Your task to perform on an android device: open wifi settings Image 0: 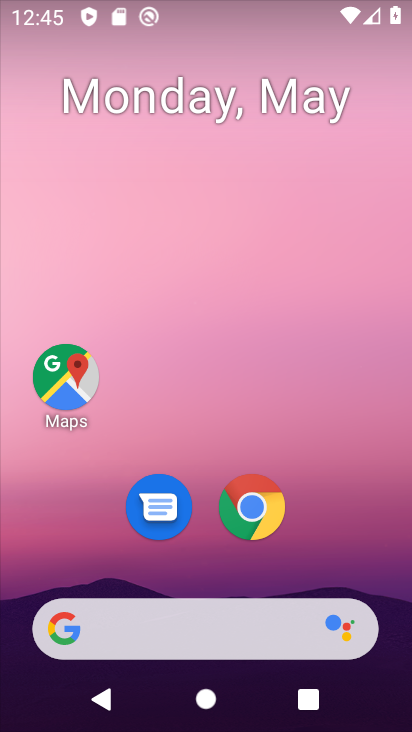
Step 0: drag from (207, 728) to (218, 5)
Your task to perform on an android device: open wifi settings Image 1: 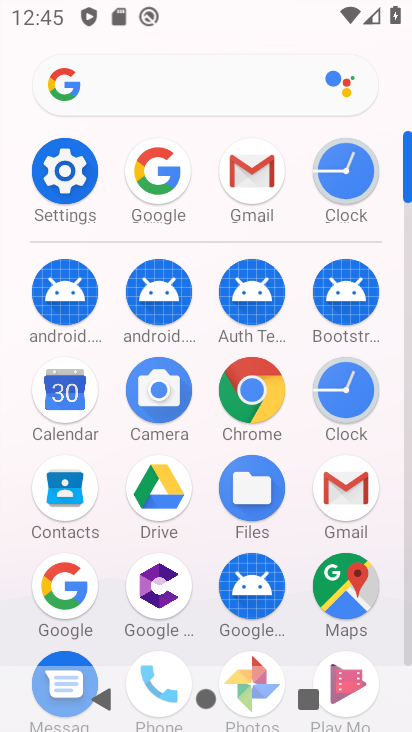
Step 1: click (71, 168)
Your task to perform on an android device: open wifi settings Image 2: 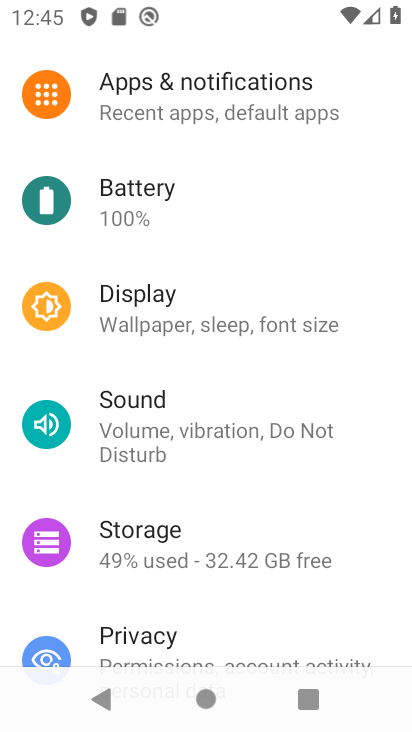
Step 2: drag from (275, 118) to (286, 619)
Your task to perform on an android device: open wifi settings Image 3: 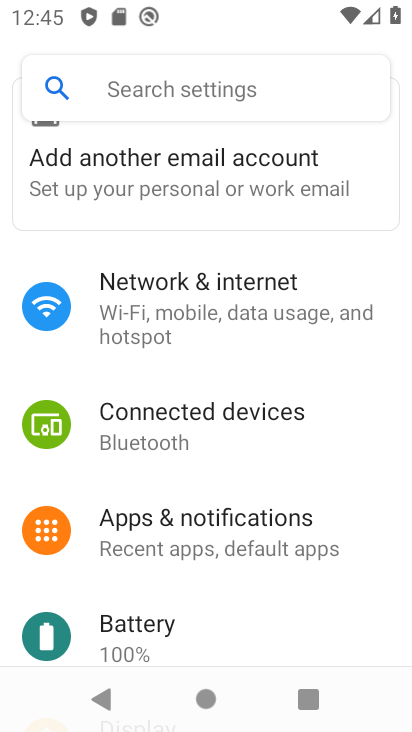
Step 3: click (162, 295)
Your task to perform on an android device: open wifi settings Image 4: 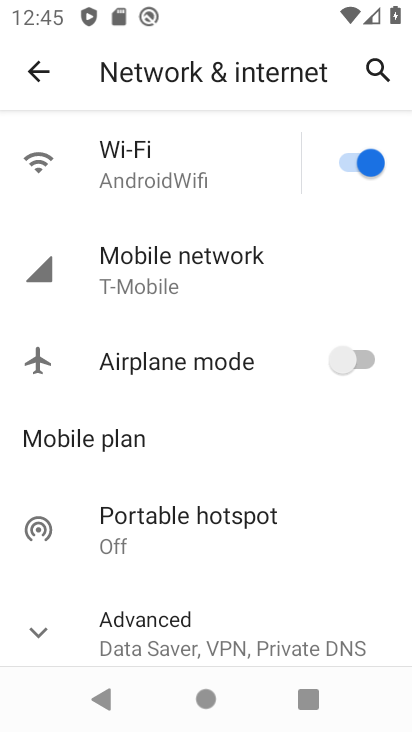
Step 4: click (134, 175)
Your task to perform on an android device: open wifi settings Image 5: 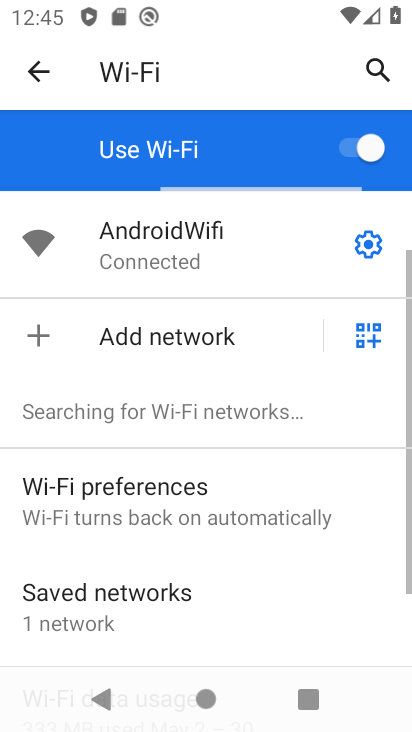
Step 5: task complete